Your task to perform on an android device: Search for sony triple a on bestbuy.com, select the first entry, add it to the cart, then select checkout. Image 0: 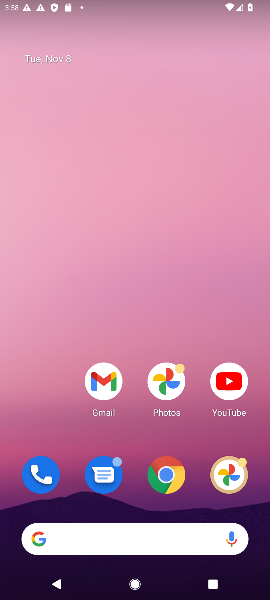
Step 0: drag from (59, 516) to (161, 155)
Your task to perform on an android device: Search for sony triple a on bestbuy.com, select the first entry, add it to the cart, then select checkout. Image 1: 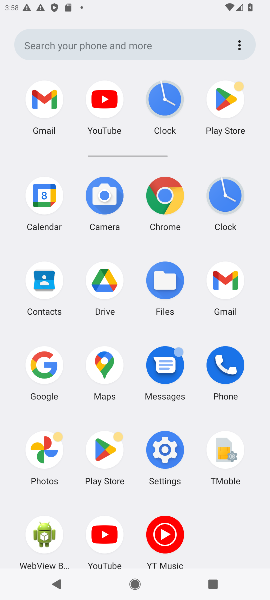
Step 1: click (41, 364)
Your task to perform on an android device: Search for sony triple a on bestbuy.com, select the first entry, add it to the cart, then select checkout. Image 2: 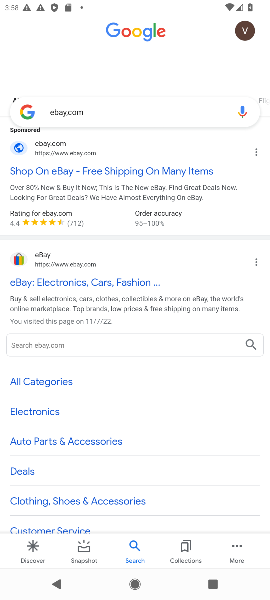
Step 2: click (104, 111)
Your task to perform on an android device: Search for sony triple a on bestbuy.com, select the first entry, add it to the cart, then select checkout. Image 3: 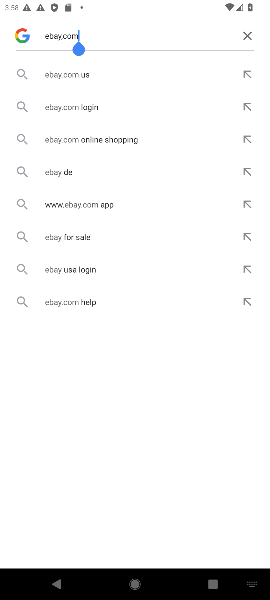
Step 3: click (246, 41)
Your task to perform on an android device: Search for sony triple a on bestbuy.com, select the first entry, add it to the cart, then select checkout. Image 4: 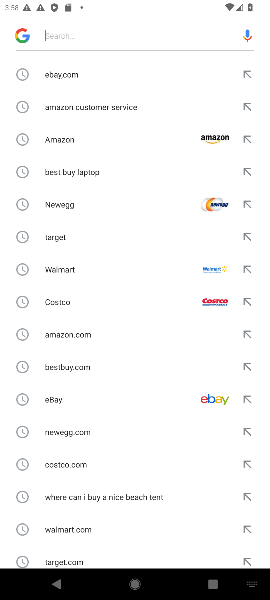
Step 4: click (89, 40)
Your task to perform on an android device: Search for sony triple a on bestbuy.com, select the first entry, add it to the cart, then select checkout. Image 5: 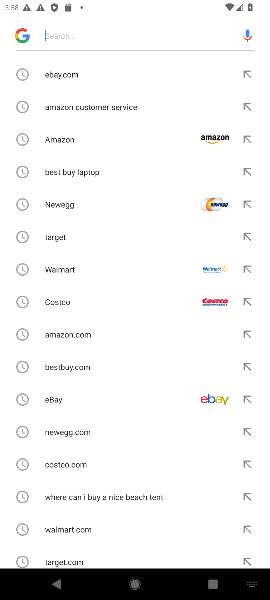
Step 5: click (96, 32)
Your task to perform on an android device: Search for sony triple a on bestbuy.com, select the first entry, add it to the cart, then select checkout. Image 6: 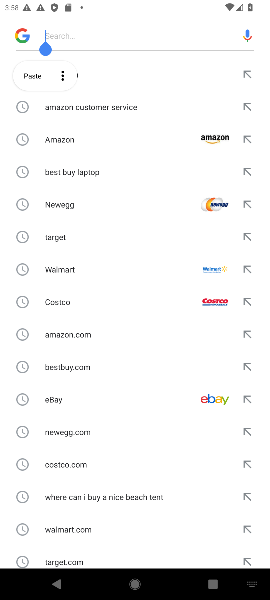
Step 6: type "bestbuy "
Your task to perform on an android device: Search for sony triple a on bestbuy.com, select the first entry, add it to the cart, then select checkout. Image 7: 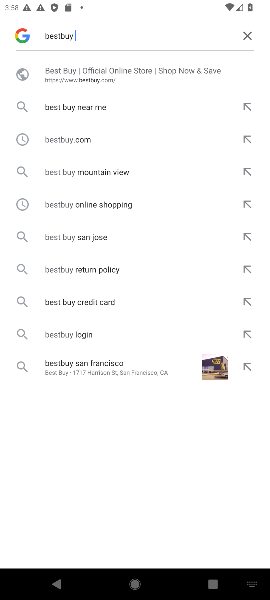
Step 7: click (73, 73)
Your task to perform on an android device: Search for sony triple a on bestbuy.com, select the first entry, add it to the cart, then select checkout. Image 8: 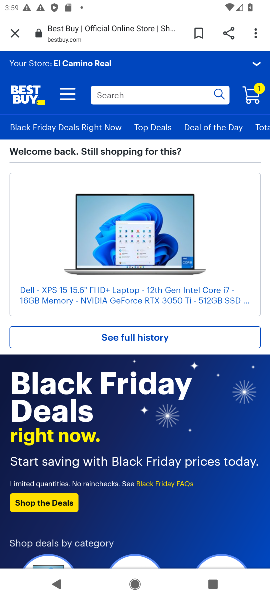
Step 8: click (151, 90)
Your task to perform on an android device: Search for sony triple a on bestbuy.com, select the first entry, add it to the cart, then select checkout. Image 9: 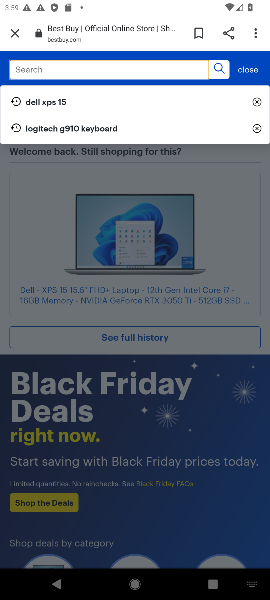
Step 9: click (96, 69)
Your task to perform on an android device: Search for sony triple a on bestbuy.com, select the first entry, add it to the cart, then select checkout. Image 10: 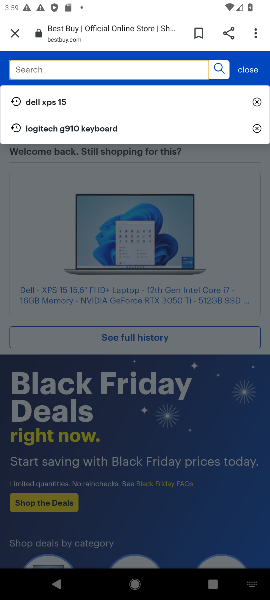
Step 10: type "sony triple "
Your task to perform on an android device: Search for sony triple a on bestbuy.com, select the first entry, add it to the cart, then select checkout. Image 11: 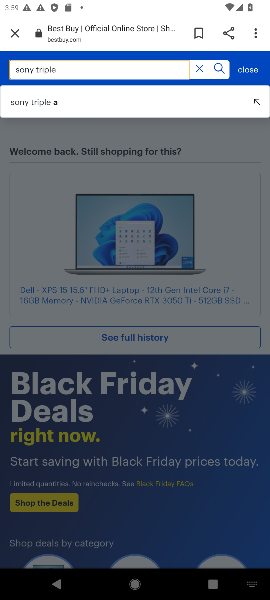
Step 11: click (216, 73)
Your task to perform on an android device: Search for sony triple a on bestbuy.com, select the first entry, add it to the cart, then select checkout. Image 12: 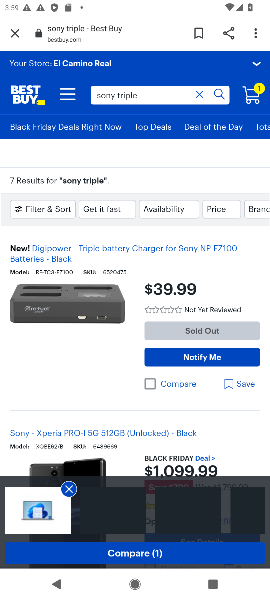
Step 12: drag from (121, 436) to (131, 269)
Your task to perform on an android device: Search for sony triple a on bestbuy.com, select the first entry, add it to the cart, then select checkout. Image 13: 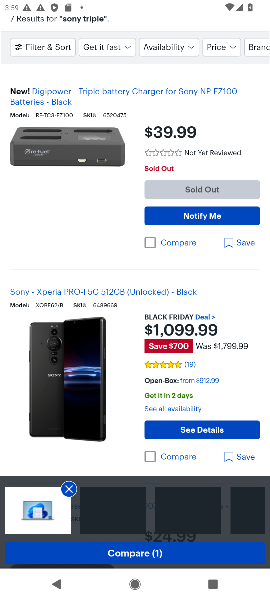
Step 13: click (65, 487)
Your task to perform on an android device: Search for sony triple a on bestbuy.com, select the first entry, add it to the cart, then select checkout. Image 14: 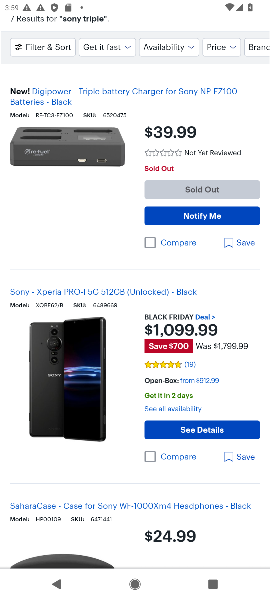
Step 14: drag from (113, 514) to (168, 138)
Your task to perform on an android device: Search for sony triple a on bestbuy.com, select the first entry, add it to the cart, then select checkout. Image 15: 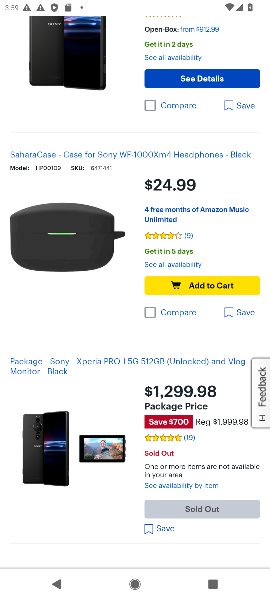
Step 15: drag from (109, 64) to (91, 465)
Your task to perform on an android device: Search for sony triple a on bestbuy.com, select the first entry, add it to the cart, then select checkout. Image 16: 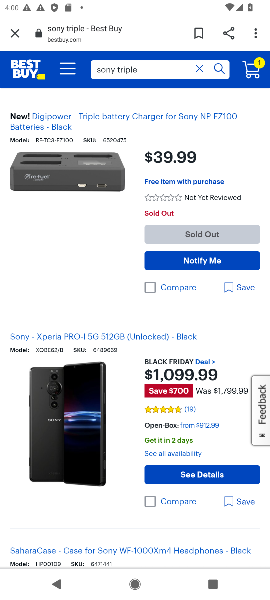
Step 16: click (199, 68)
Your task to perform on an android device: Search for sony triple a on bestbuy.com, select the first entry, add it to the cart, then select checkout. Image 17: 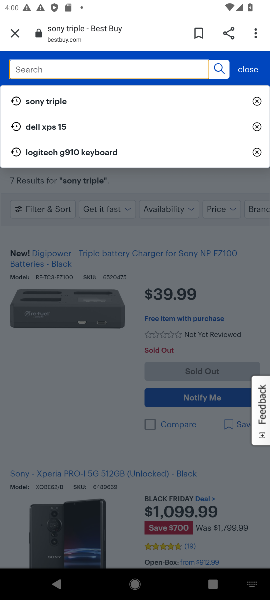
Step 17: click (87, 65)
Your task to perform on an android device: Search for sony triple a on bestbuy.com, select the first entry, add it to the cart, then select checkout. Image 18: 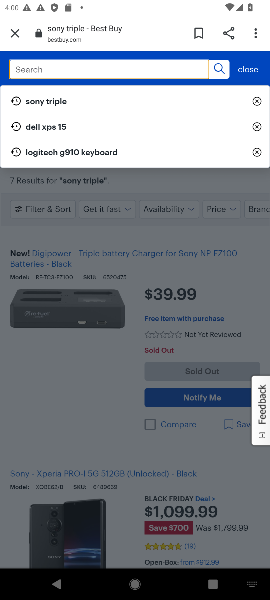
Step 18: type "triple "
Your task to perform on an android device: Search for sony triple a on bestbuy.com, select the first entry, add it to the cart, then select checkout. Image 19: 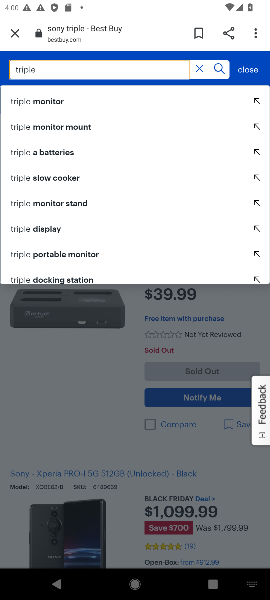
Step 19: click (46, 160)
Your task to perform on an android device: Search for sony triple a on bestbuy.com, select the first entry, add it to the cart, then select checkout. Image 20: 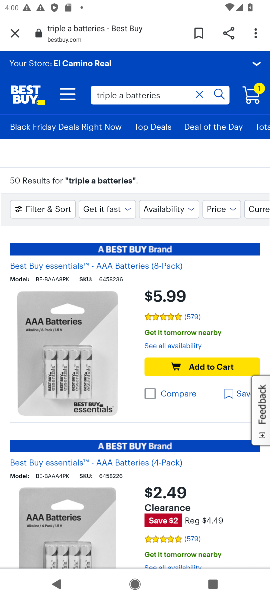
Step 20: click (207, 364)
Your task to perform on an android device: Search for sony triple a on bestbuy.com, select the first entry, add it to the cart, then select checkout. Image 21: 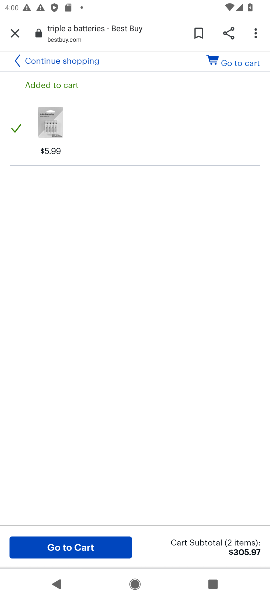
Step 21: click (72, 544)
Your task to perform on an android device: Search for sony triple a on bestbuy.com, select the first entry, add it to the cart, then select checkout. Image 22: 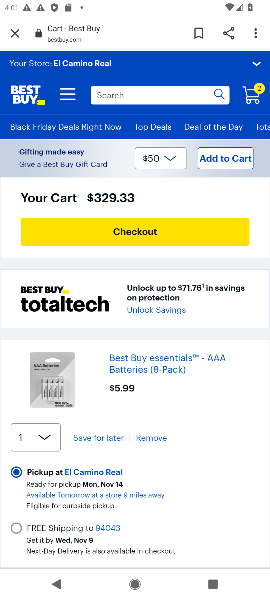
Step 22: task complete